Your task to perform on an android device: Go to Yahoo.com Image 0: 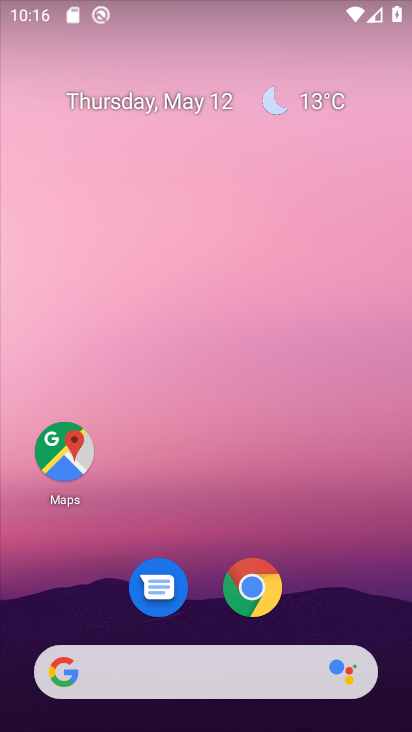
Step 0: click (252, 691)
Your task to perform on an android device: Go to Yahoo.com Image 1: 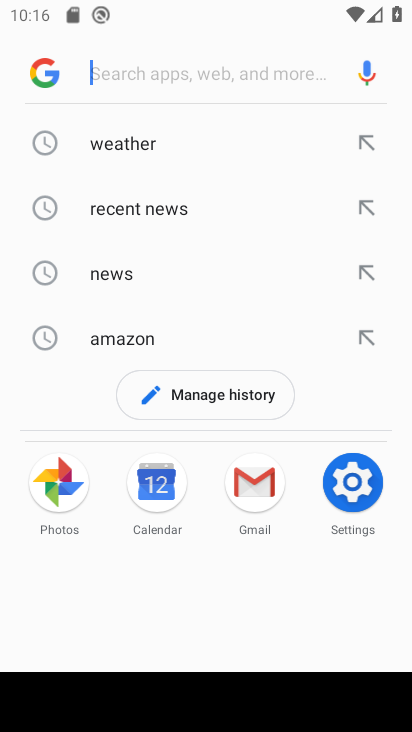
Step 1: type "Yahoo.com"
Your task to perform on an android device: Go to Yahoo.com Image 2: 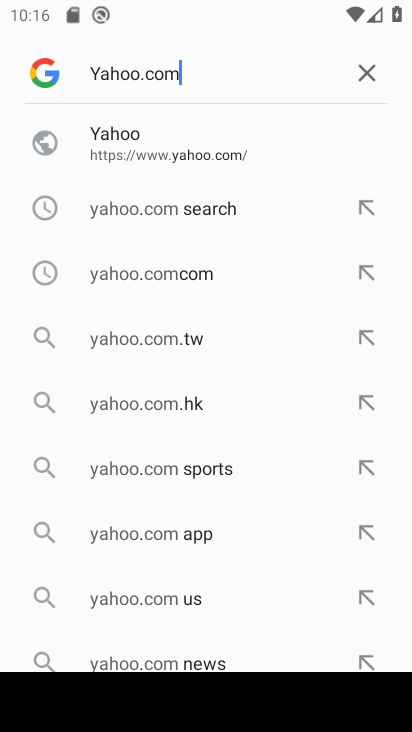
Step 2: click (198, 121)
Your task to perform on an android device: Go to Yahoo.com Image 3: 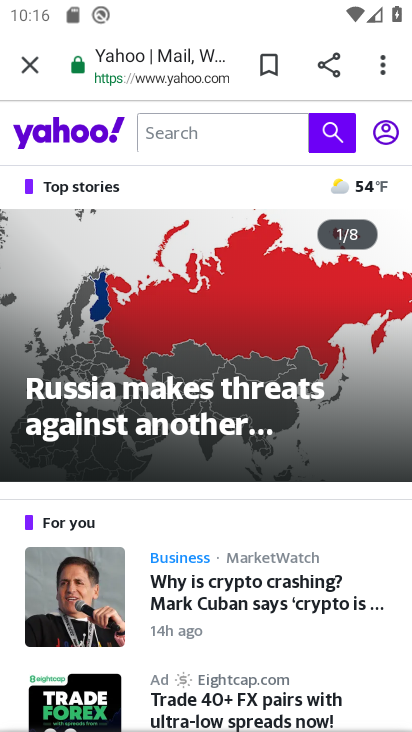
Step 3: task complete